Your task to perform on an android device: Open Wikipedia Image 0: 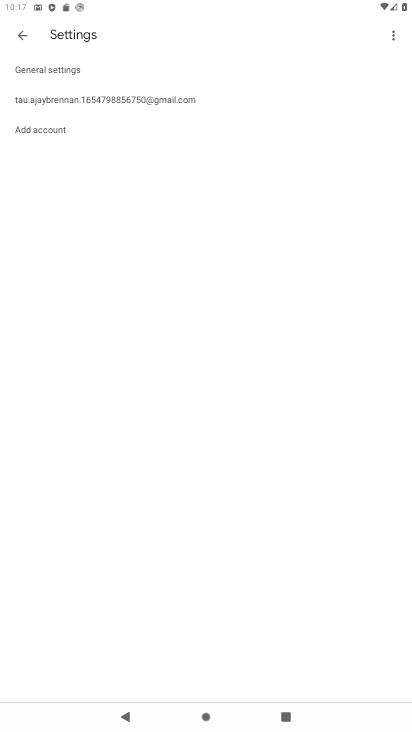
Step 0: press home button
Your task to perform on an android device: Open Wikipedia Image 1: 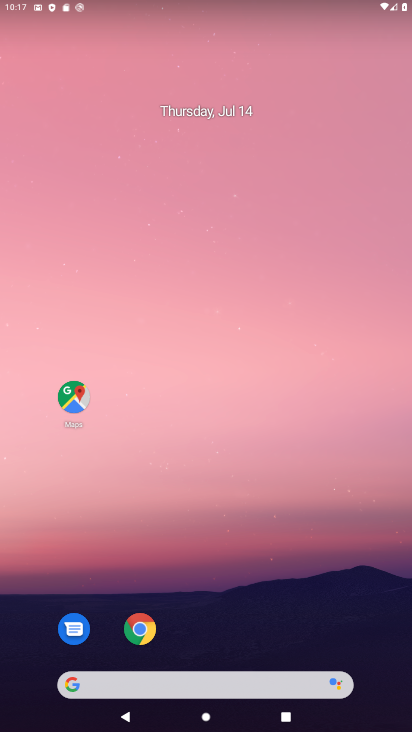
Step 1: click (139, 627)
Your task to perform on an android device: Open Wikipedia Image 2: 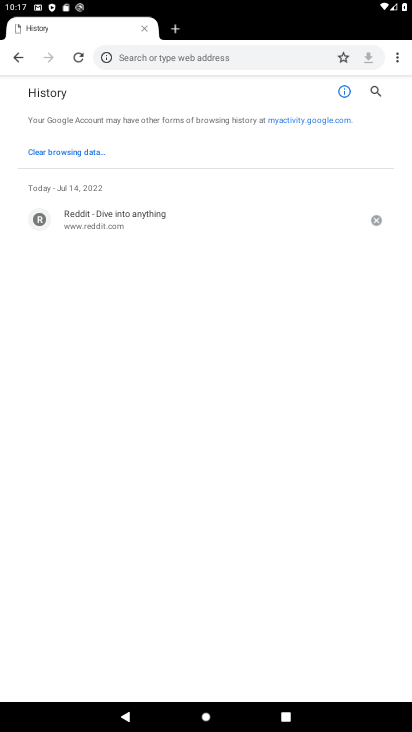
Step 2: click (213, 55)
Your task to perform on an android device: Open Wikipedia Image 3: 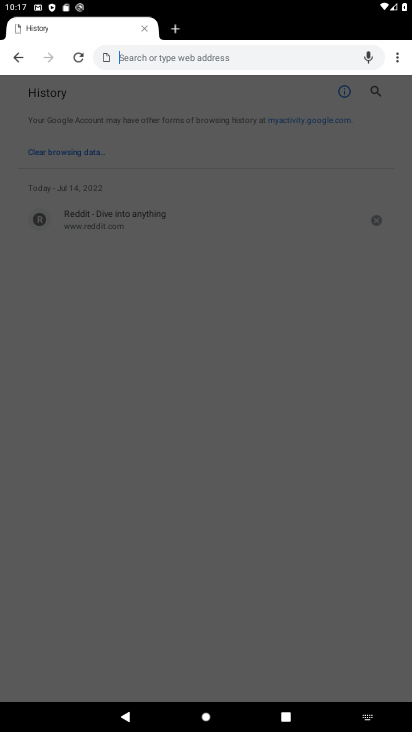
Step 3: type "wikipedia"
Your task to perform on an android device: Open Wikipedia Image 4: 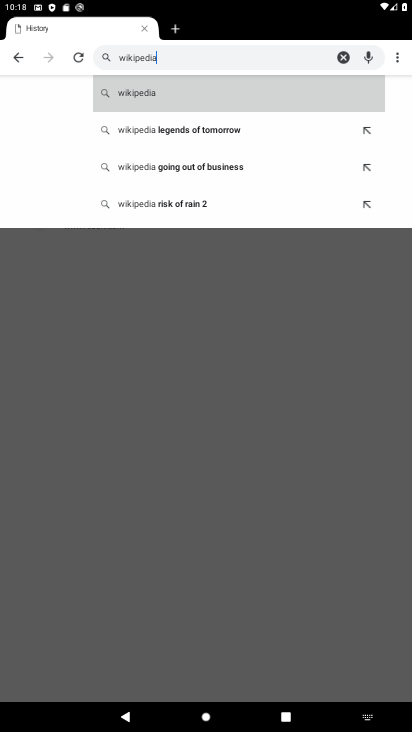
Step 4: click (244, 86)
Your task to perform on an android device: Open Wikipedia Image 5: 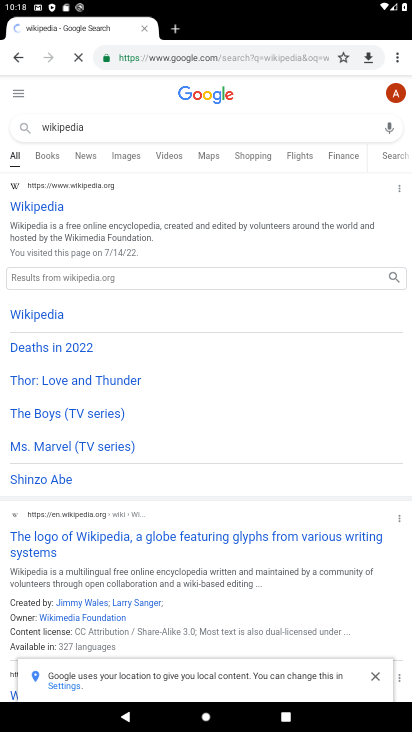
Step 5: click (44, 209)
Your task to perform on an android device: Open Wikipedia Image 6: 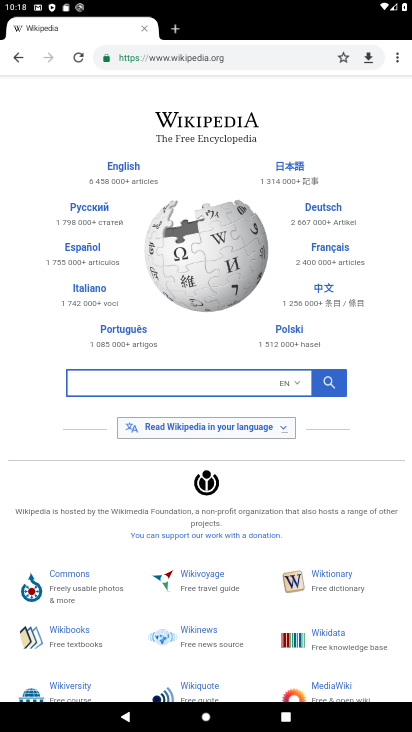
Step 6: task complete